Your task to perform on an android device: empty trash in google photos Image 0: 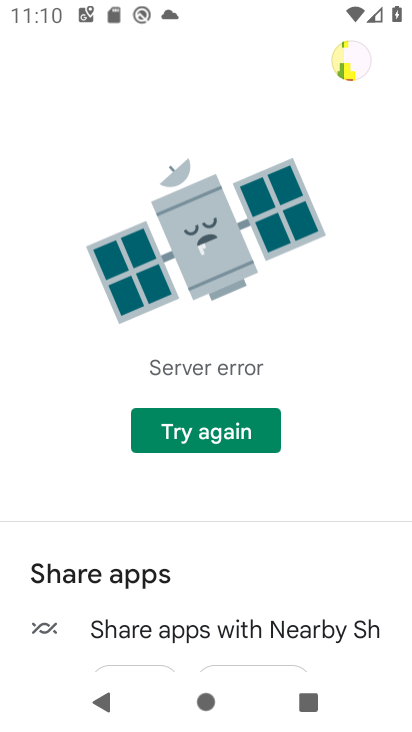
Step 0: press home button
Your task to perform on an android device: empty trash in google photos Image 1: 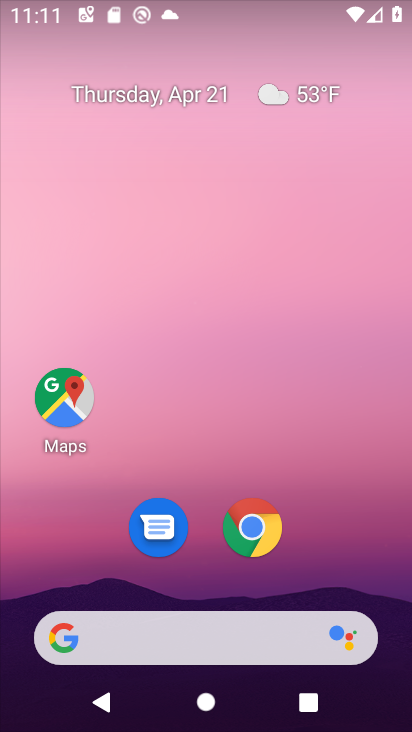
Step 1: drag from (352, 544) to (355, 125)
Your task to perform on an android device: empty trash in google photos Image 2: 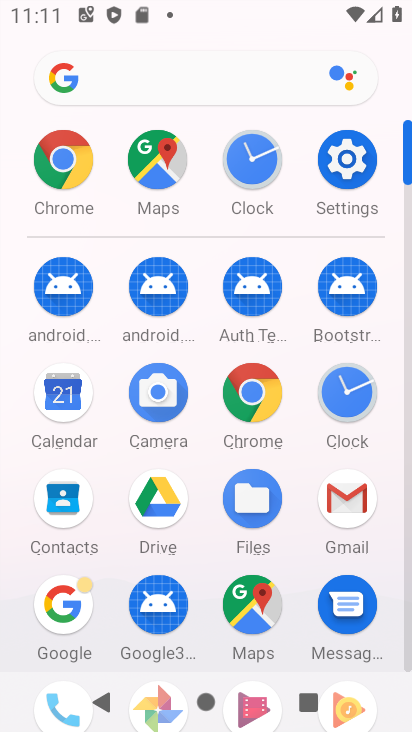
Step 2: drag from (395, 559) to (397, 239)
Your task to perform on an android device: empty trash in google photos Image 3: 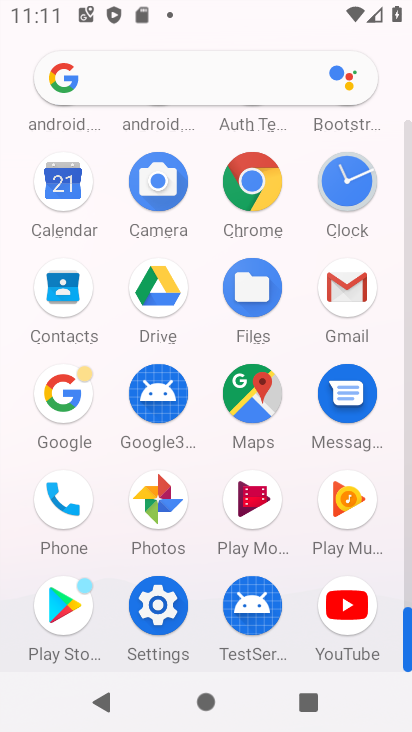
Step 3: click (154, 509)
Your task to perform on an android device: empty trash in google photos Image 4: 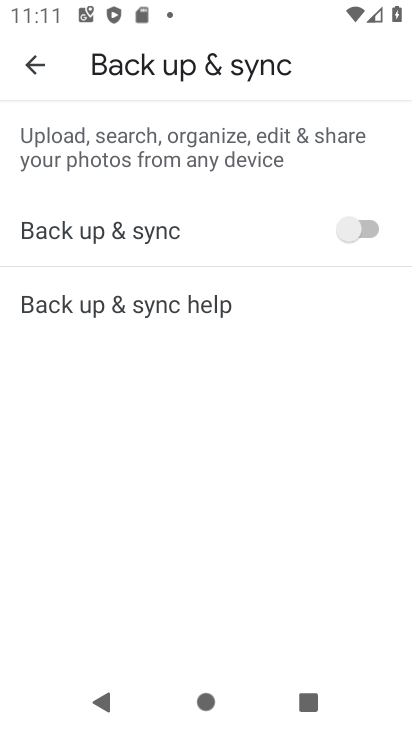
Step 4: click (31, 65)
Your task to perform on an android device: empty trash in google photos Image 5: 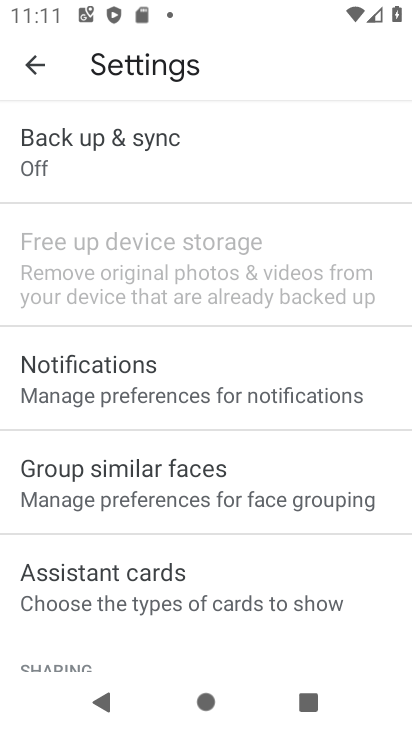
Step 5: click (31, 65)
Your task to perform on an android device: empty trash in google photos Image 6: 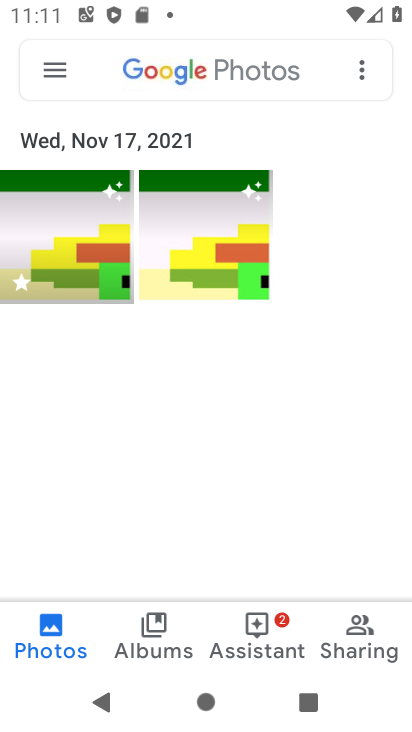
Step 6: click (61, 73)
Your task to perform on an android device: empty trash in google photos Image 7: 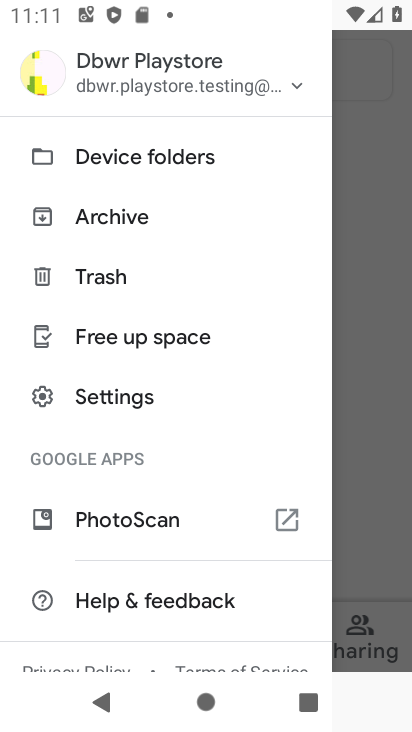
Step 7: drag from (231, 520) to (231, 365)
Your task to perform on an android device: empty trash in google photos Image 8: 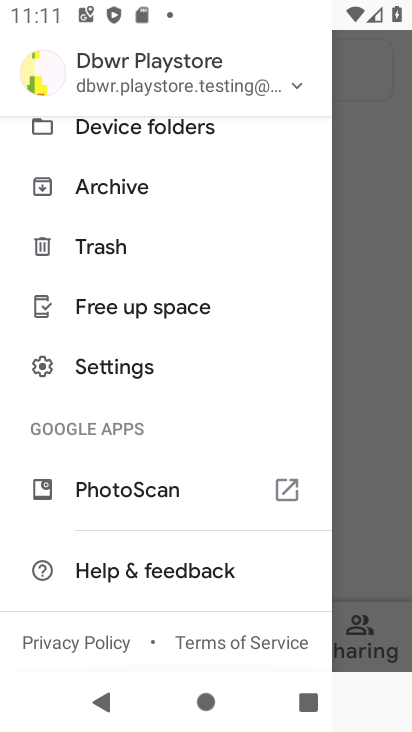
Step 8: drag from (230, 361) to (222, 459)
Your task to perform on an android device: empty trash in google photos Image 9: 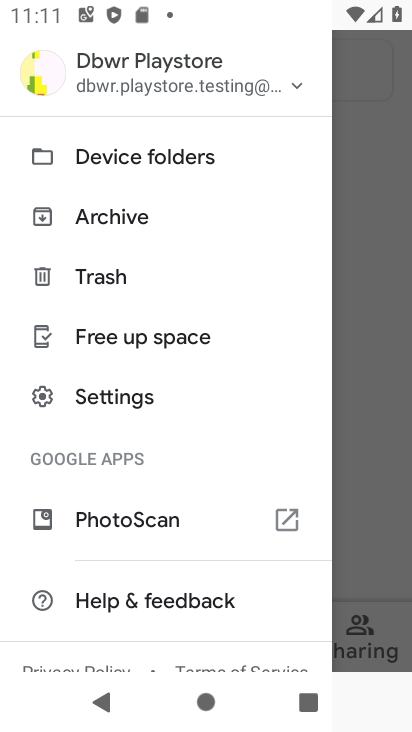
Step 9: drag from (234, 332) to (226, 449)
Your task to perform on an android device: empty trash in google photos Image 10: 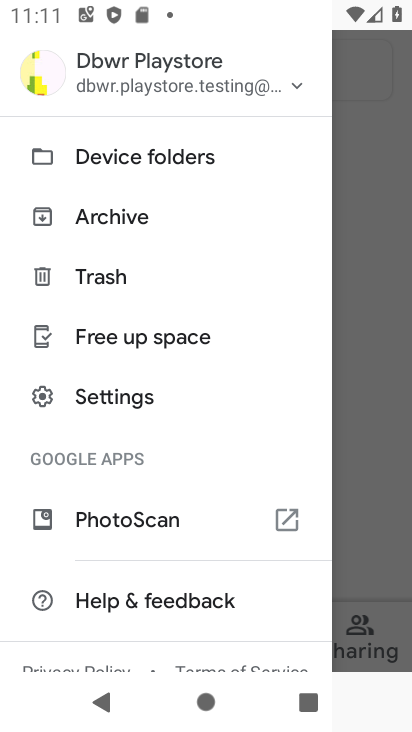
Step 10: click (150, 270)
Your task to perform on an android device: empty trash in google photos Image 11: 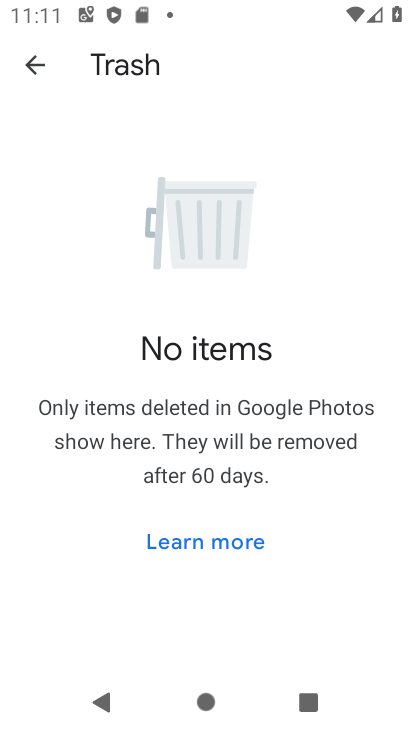
Step 11: task complete